Your task to perform on an android device: toggle improve location accuracy Image 0: 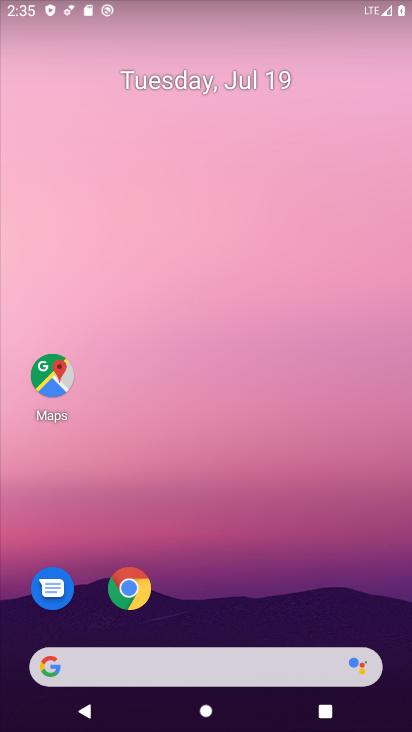
Step 0: drag from (192, 594) to (197, 139)
Your task to perform on an android device: toggle improve location accuracy Image 1: 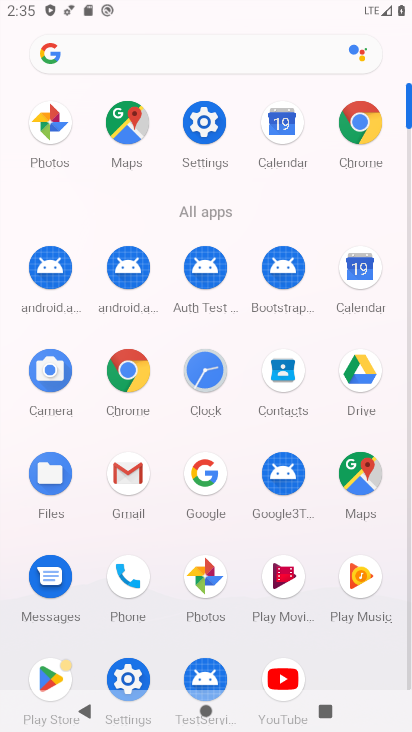
Step 1: click (204, 117)
Your task to perform on an android device: toggle improve location accuracy Image 2: 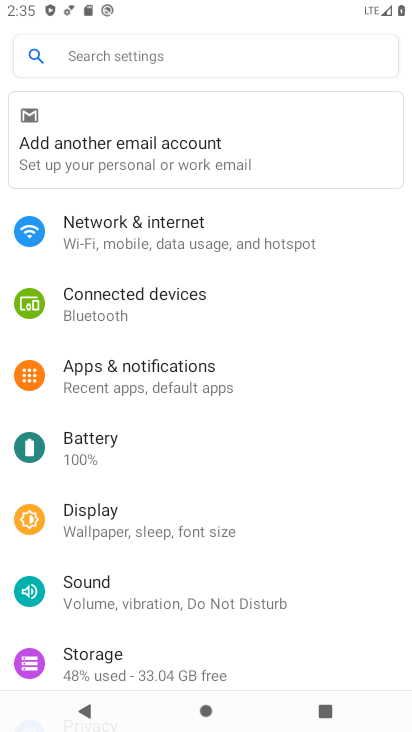
Step 2: drag from (193, 601) to (178, 282)
Your task to perform on an android device: toggle improve location accuracy Image 3: 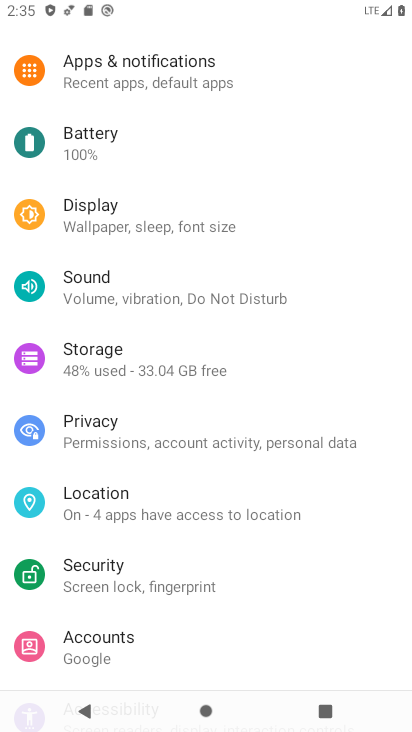
Step 3: click (125, 503)
Your task to perform on an android device: toggle improve location accuracy Image 4: 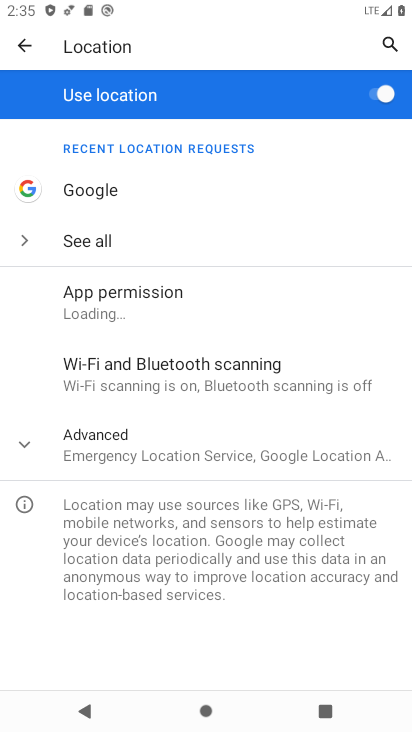
Step 4: click (118, 449)
Your task to perform on an android device: toggle improve location accuracy Image 5: 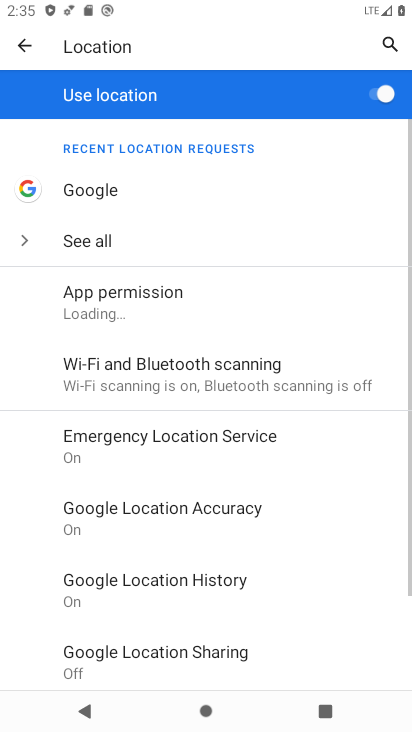
Step 5: click (213, 516)
Your task to perform on an android device: toggle improve location accuracy Image 6: 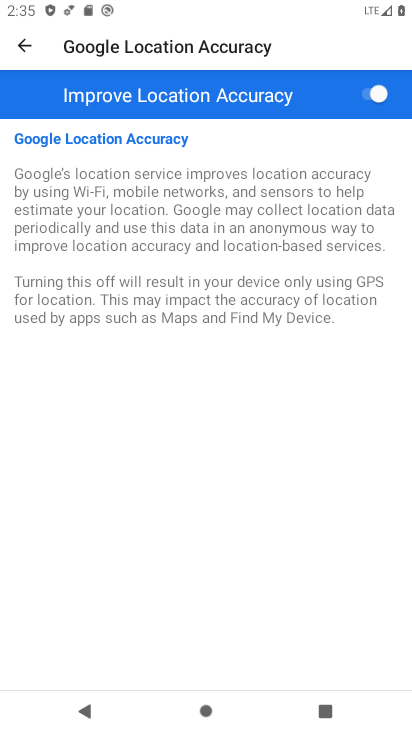
Step 6: click (382, 100)
Your task to perform on an android device: toggle improve location accuracy Image 7: 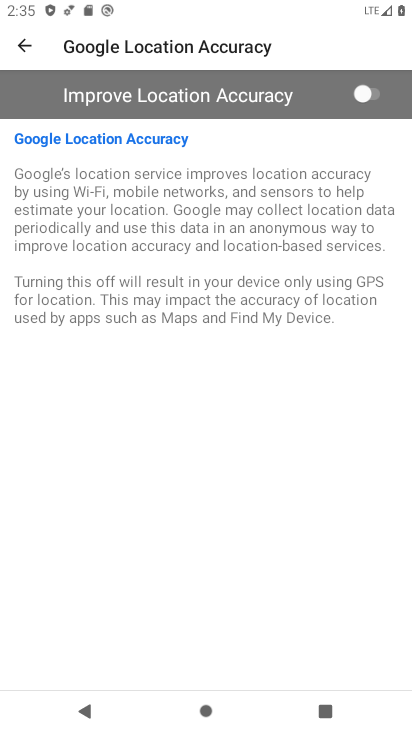
Step 7: task complete